Your task to perform on an android device: empty trash in google photos Image 0: 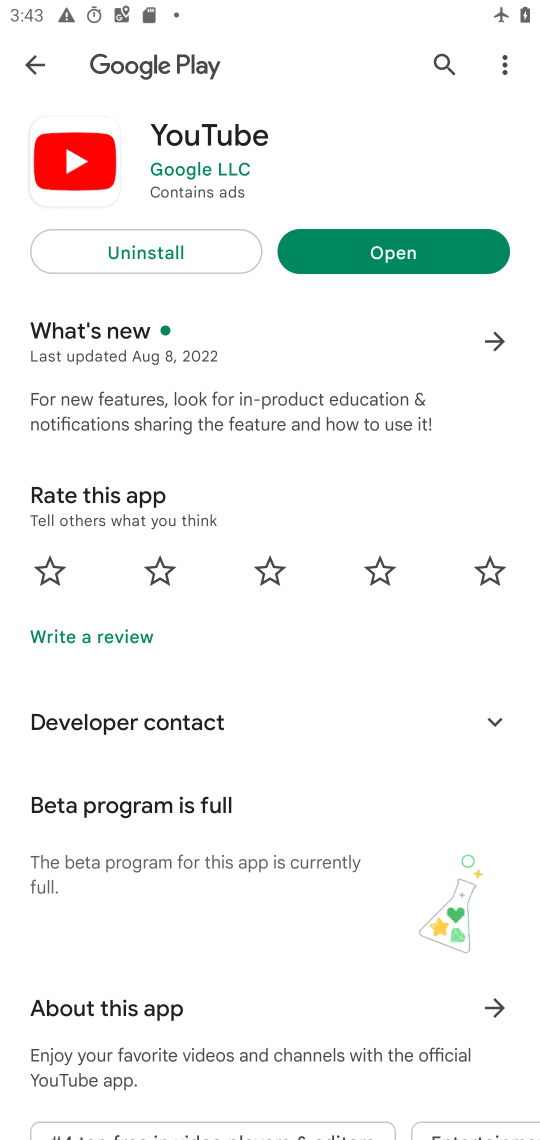
Step 0: press home button
Your task to perform on an android device: empty trash in google photos Image 1: 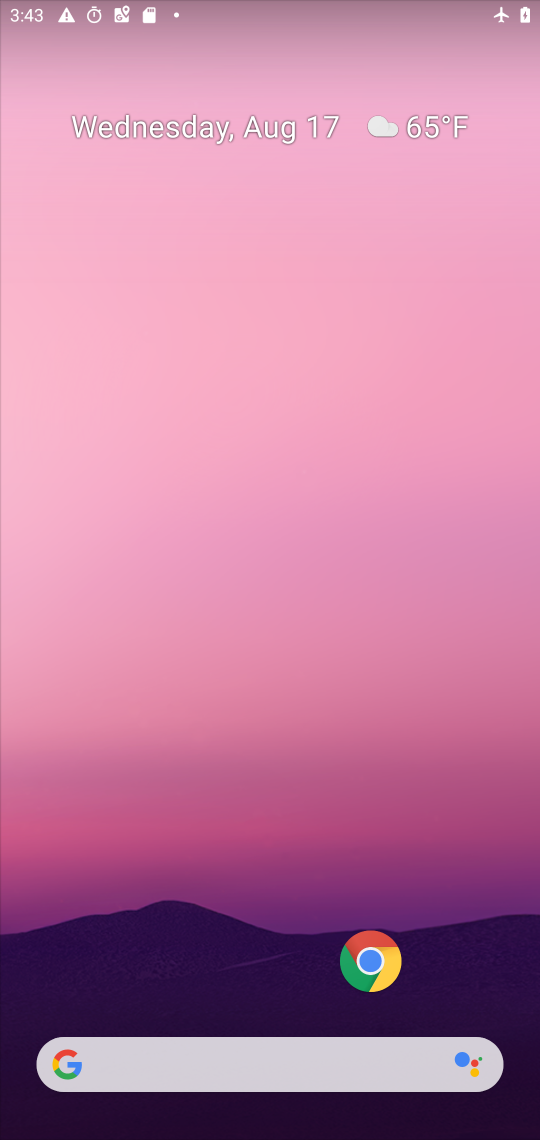
Step 1: drag from (369, 887) to (532, 229)
Your task to perform on an android device: empty trash in google photos Image 2: 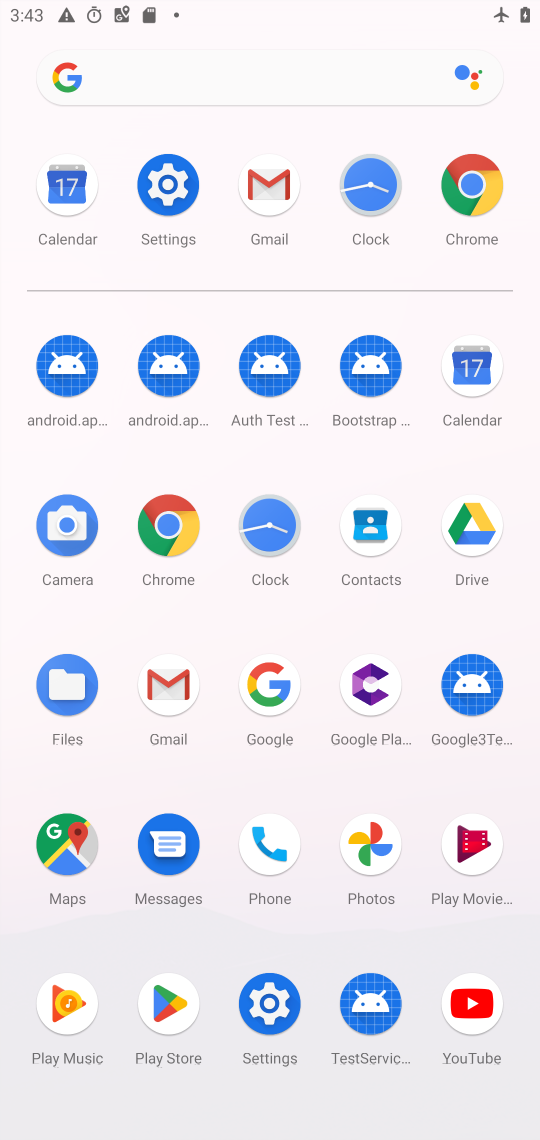
Step 2: click (386, 868)
Your task to perform on an android device: empty trash in google photos Image 3: 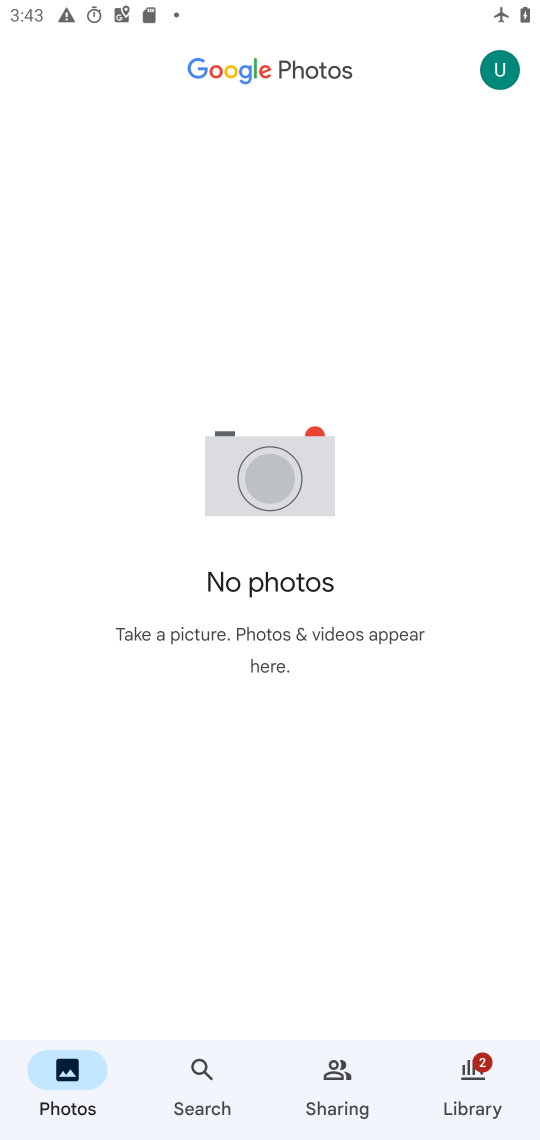
Step 3: click (514, 74)
Your task to perform on an android device: empty trash in google photos Image 4: 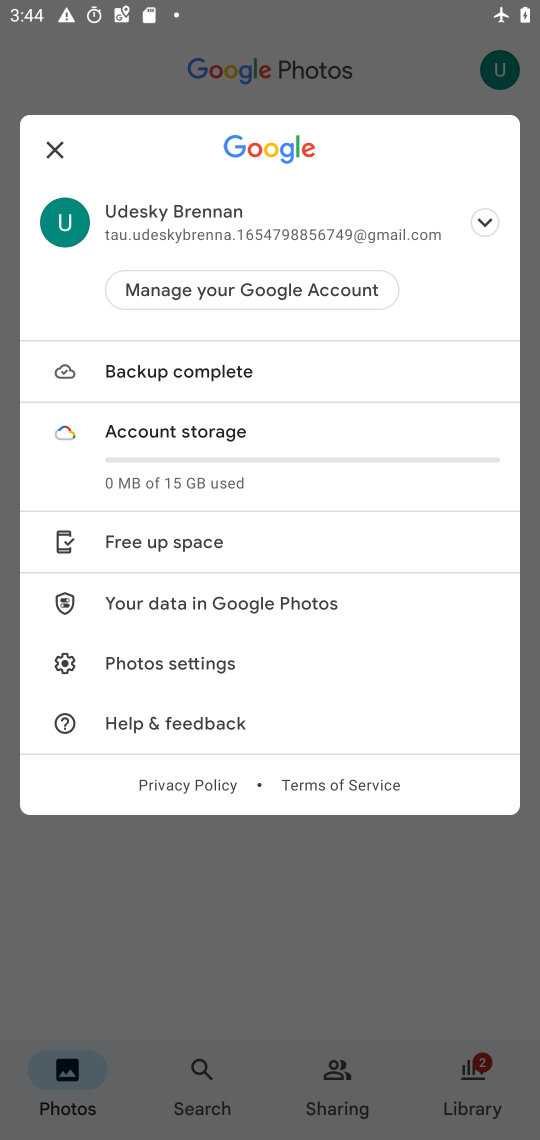
Step 4: click (358, 965)
Your task to perform on an android device: empty trash in google photos Image 5: 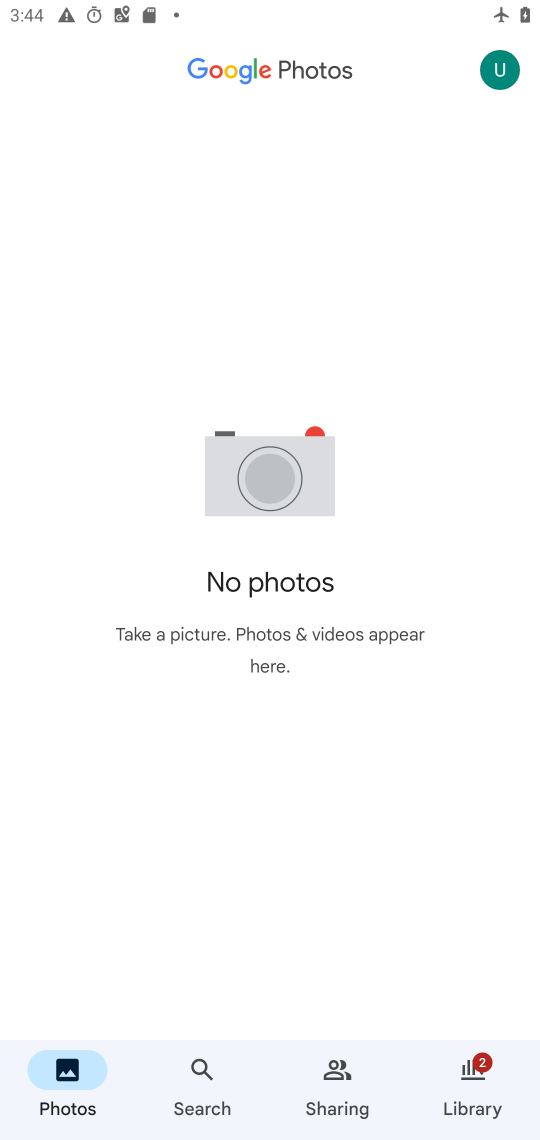
Step 5: click (503, 1091)
Your task to perform on an android device: empty trash in google photos Image 6: 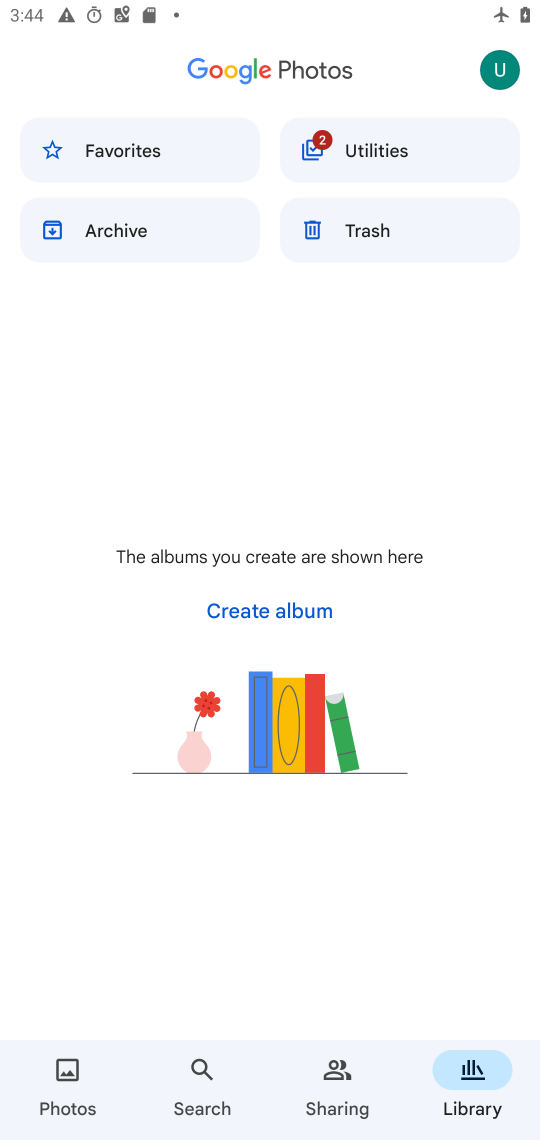
Step 6: click (364, 236)
Your task to perform on an android device: empty trash in google photos Image 7: 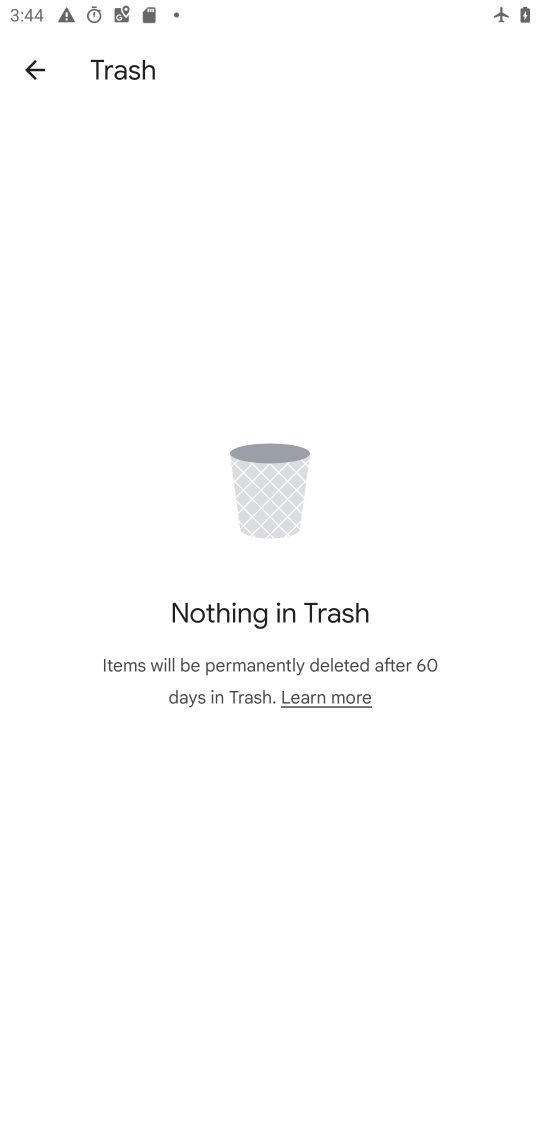
Step 7: task complete